Your task to perform on an android device: Open CNN.com Image 0: 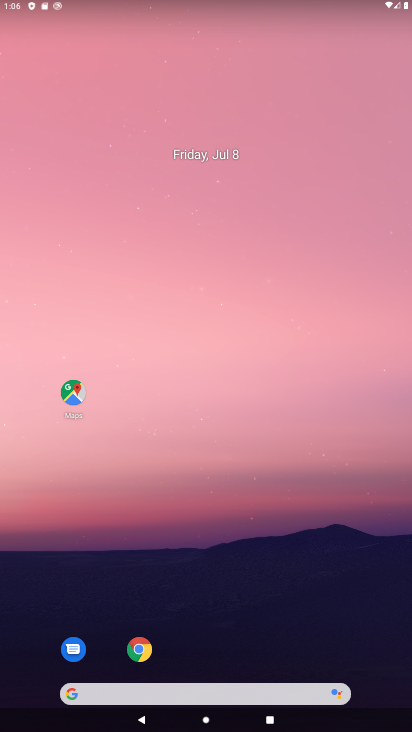
Step 0: drag from (308, 605) to (192, 130)
Your task to perform on an android device: Open CNN.com Image 1: 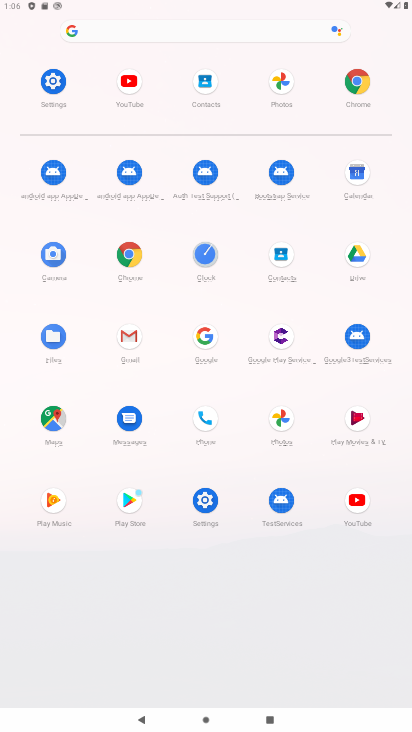
Step 1: click (124, 250)
Your task to perform on an android device: Open CNN.com Image 2: 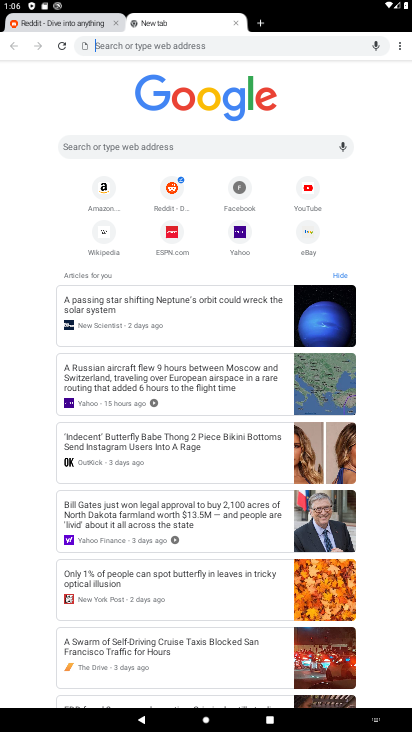
Step 2: type "cnn.com"
Your task to perform on an android device: Open CNN.com Image 3: 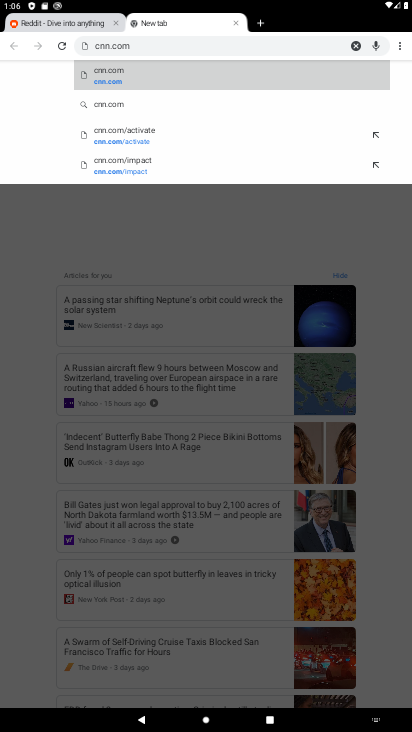
Step 3: click (113, 81)
Your task to perform on an android device: Open CNN.com Image 4: 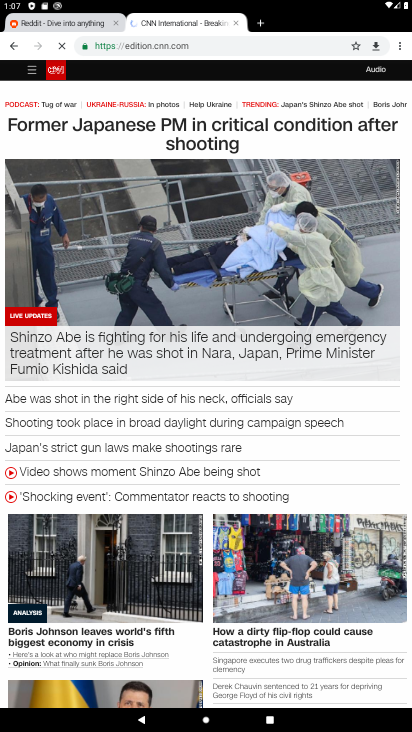
Step 4: task complete